Your task to perform on an android device: Check the weather Image 0: 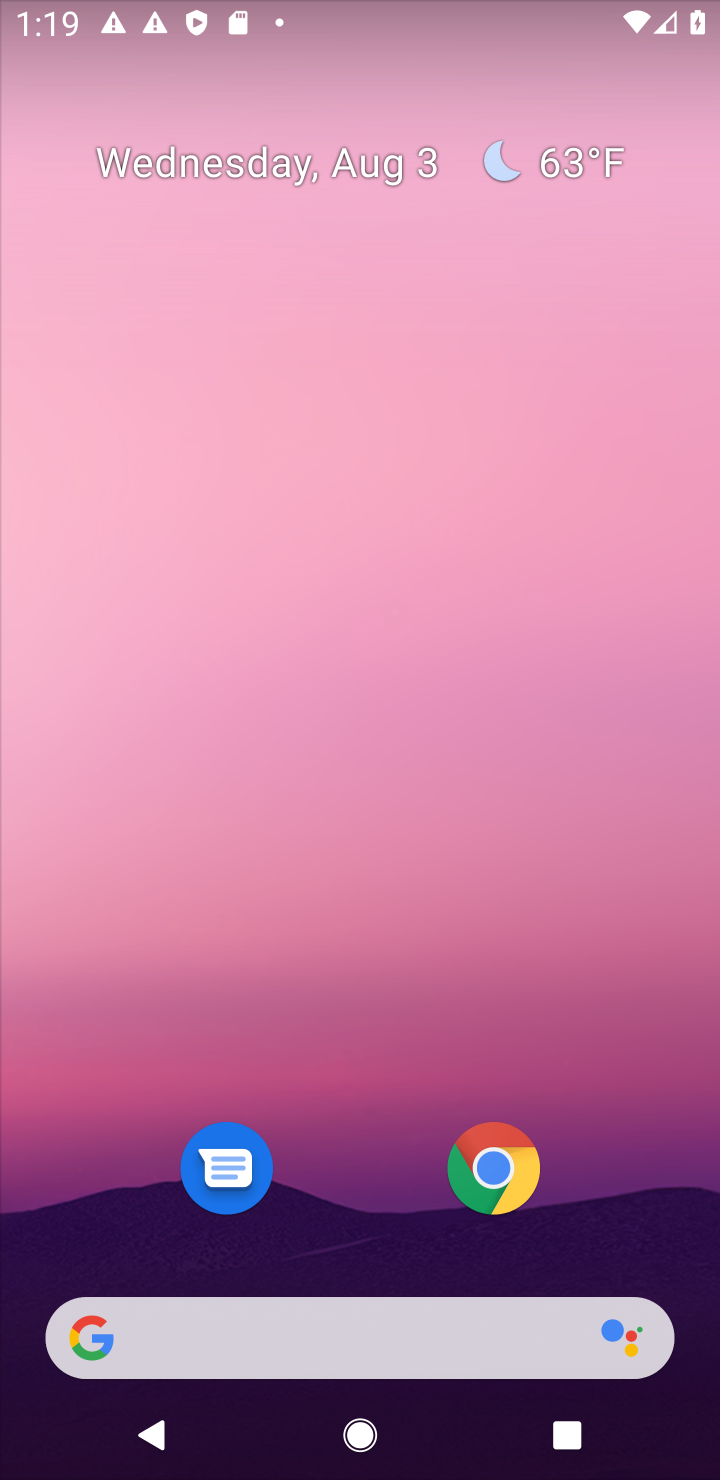
Step 0: click (566, 169)
Your task to perform on an android device: Check the weather Image 1: 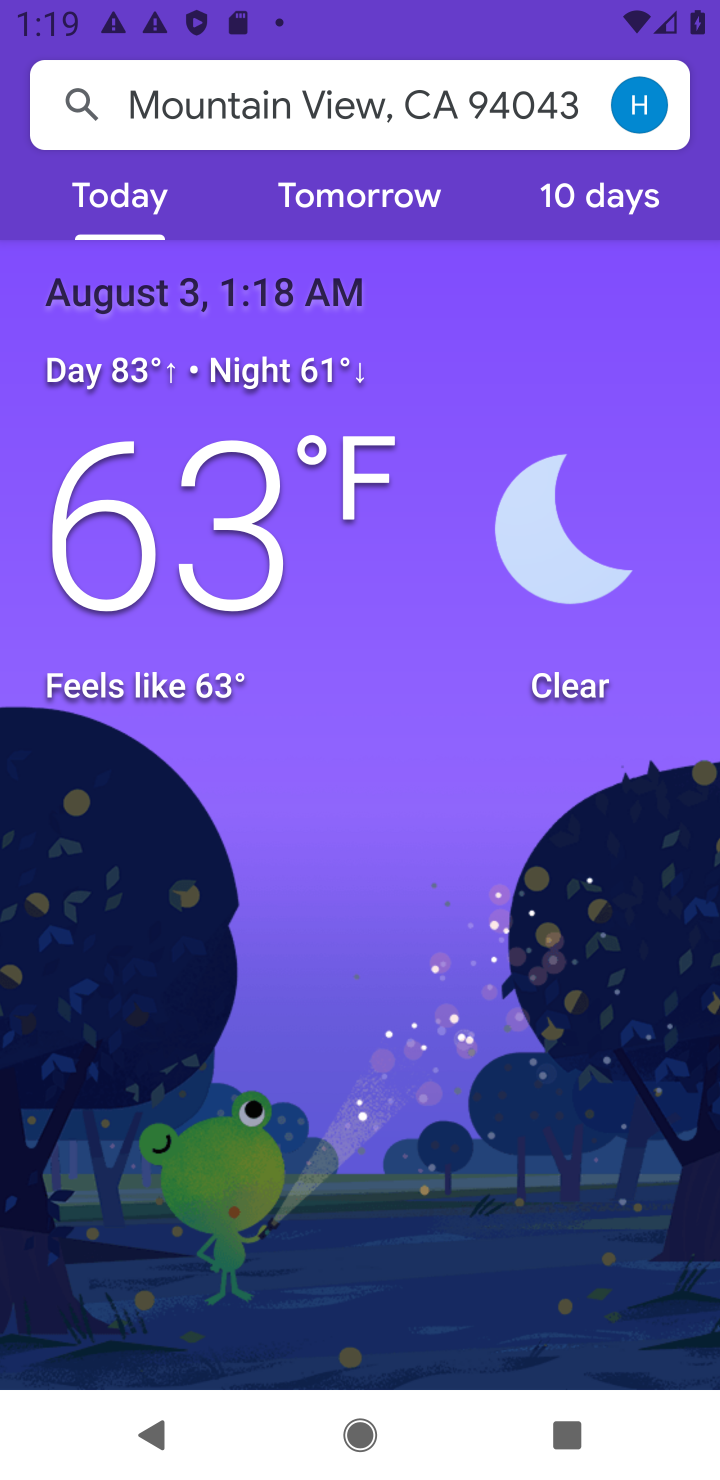
Step 1: task complete